Your task to perform on an android device: turn off smart reply in the gmail app Image 0: 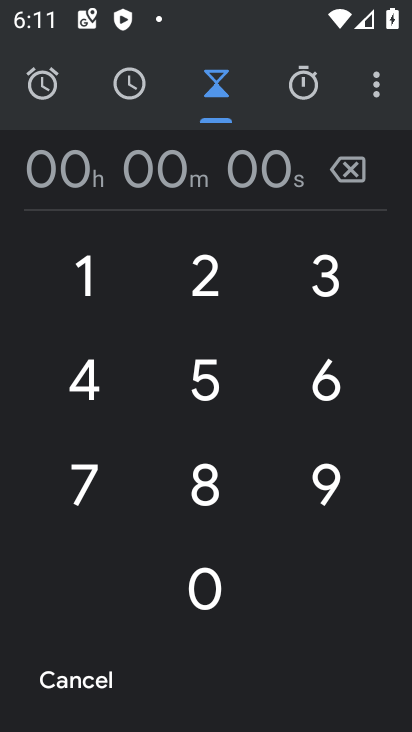
Step 0: press home button
Your task to perform on an android device: turn off smart reply in the gmail app Image 1: 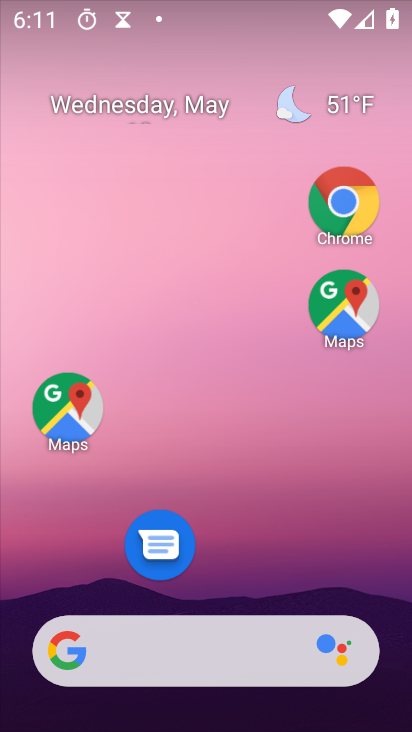
Step 1: drag from (235, 581) to (245, 105)
Your task to perform on an android device: turn off smart reply in the gmail app Image 2: 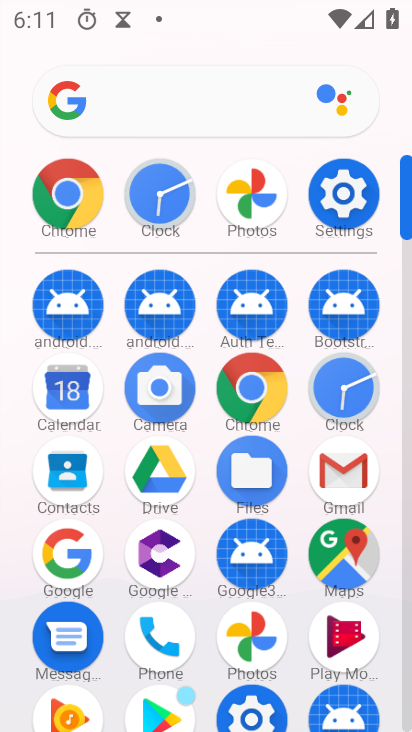
Step 2: click (344, 481)
Your task to perform on an android device: turn off smart reply in the gmail app Image 3: 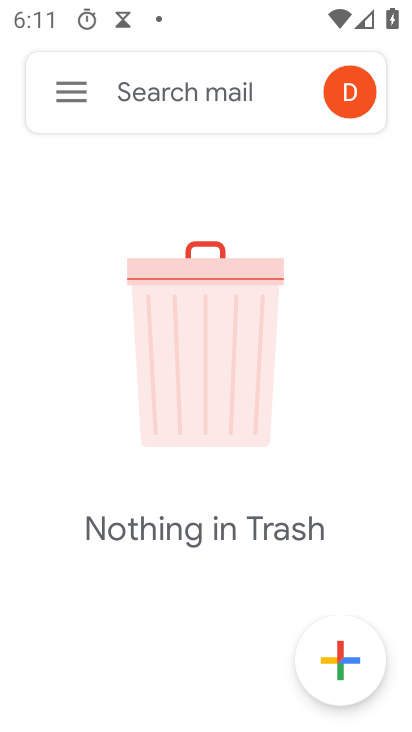
Step 3: click (60, 86)
Your task to perform on an android device: turn off smart reply in the gmail app Image 4: 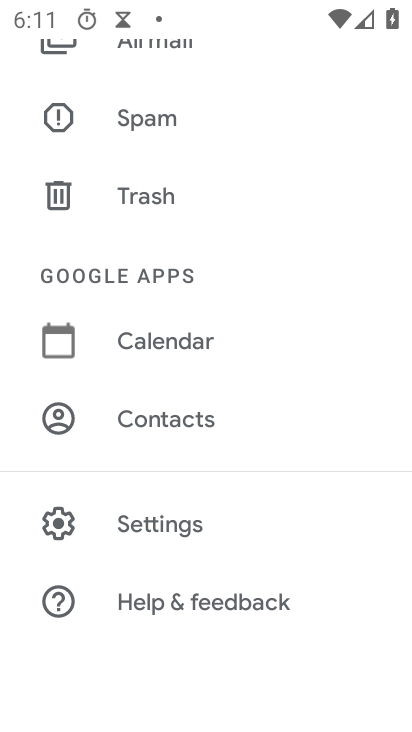
Step 4: click (141, 519)
Your task to perform on an android device: turn off smart reply in the gmail app Image 5: 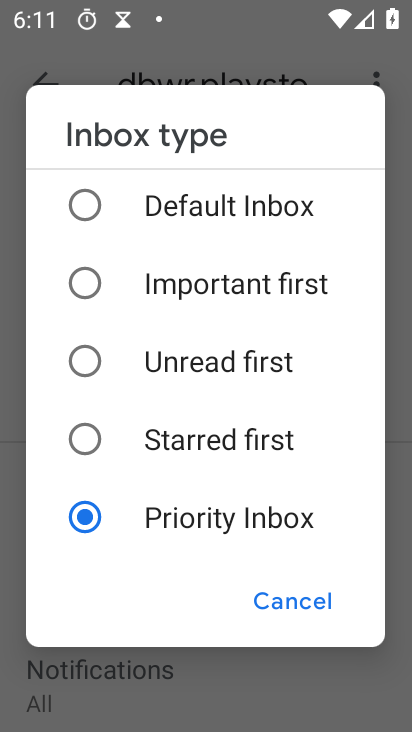
Step 5: click (273, 609)
Your task to perform on an android device: turn off smart reply in the gmail app Image 6: 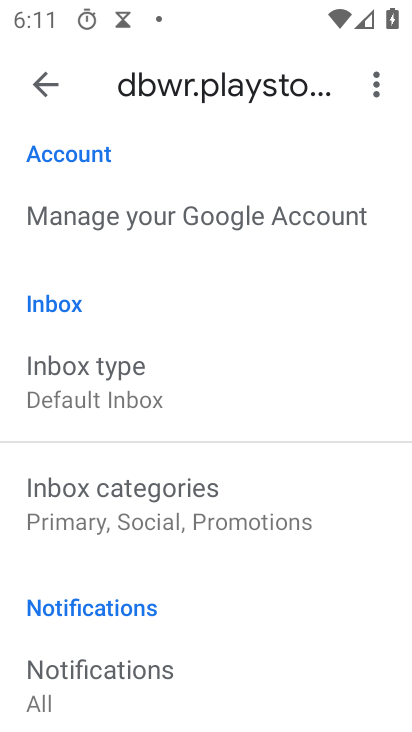
Step 6: task complete